Your task to perform on an android device: Open location settings Image 0: 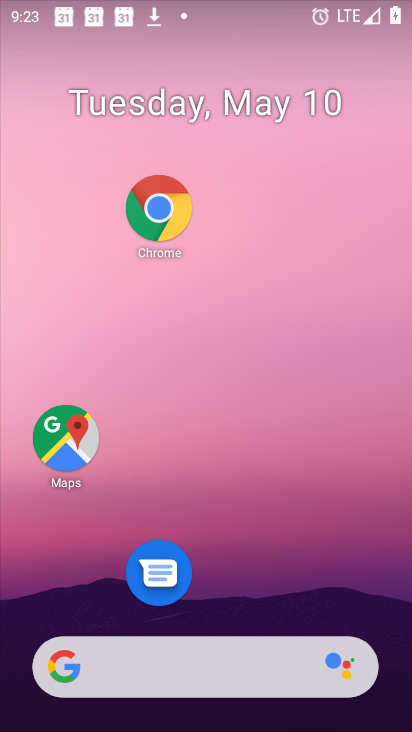
Step 0: drag from (301, 691) to (304, 429)
Your task to perform on an android device: Open location settings Image 1: 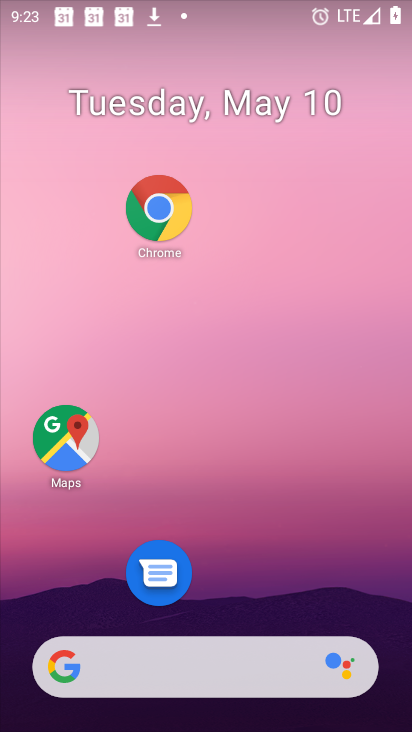
Step 1: drag from (275, 690) to (318, 115)
Your task to perform on an android device: Open location settings Image 2: 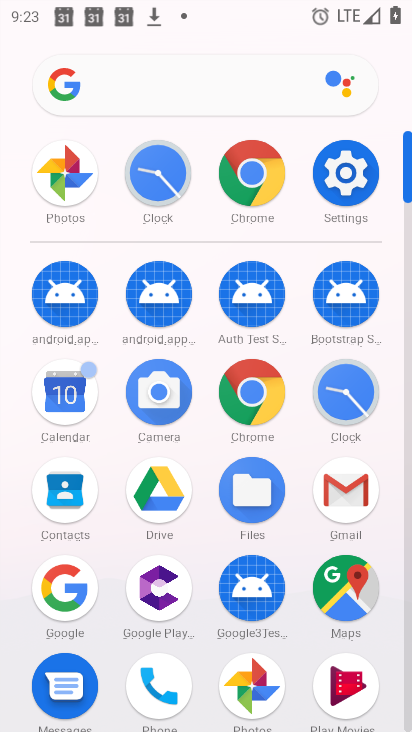
Step 2: click (338, 172)
Your task to perform on an android device: Open location settings Image 3: 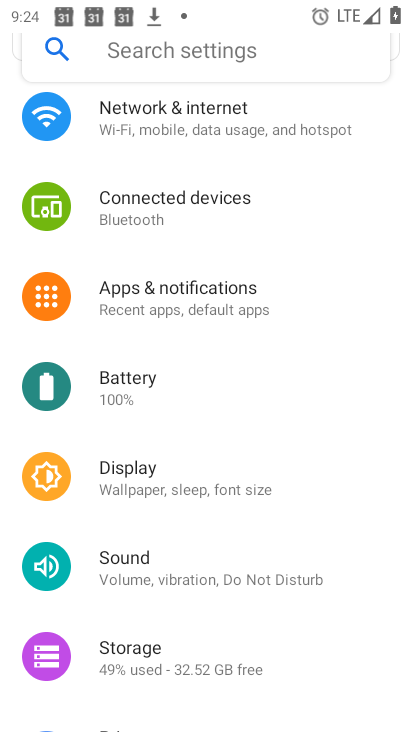
Step 3: click (181, 62)
Your task to perform on an android device: Open location settings Image 4: 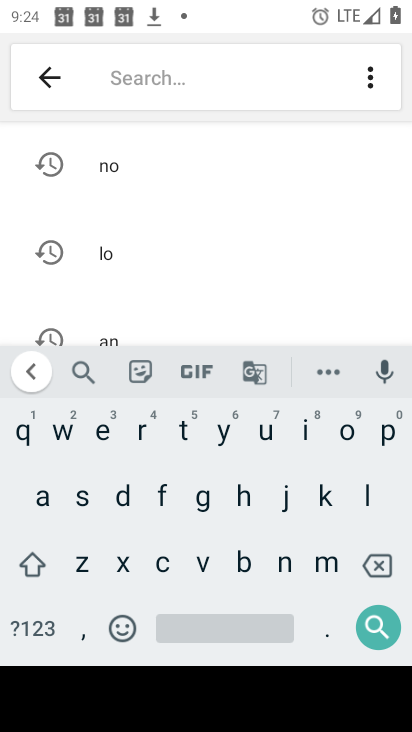
Step 4: click (363, 493)
Your task to perform on an android device: Open location settings Image 5: 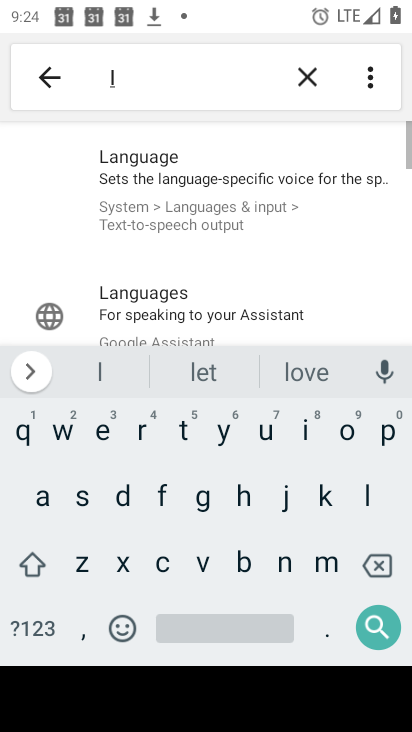
Step 5: click (347, 435)
Your task to perform on an android device: Open location settings Image 6: 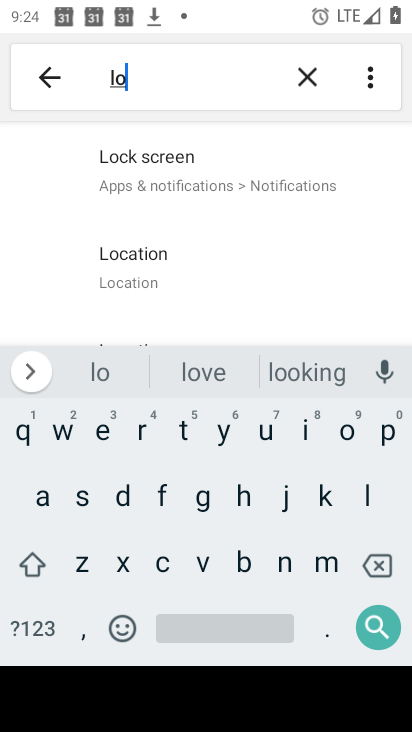
Step 6: click (137, 256)
Your task to perform on an android device: Open location settings Image 7: 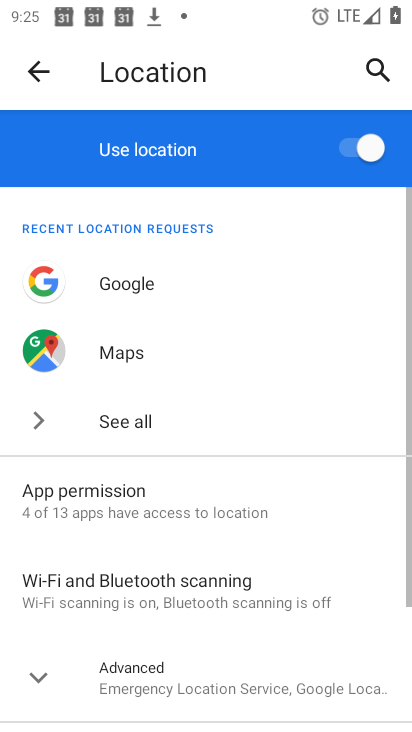
Step 7: task complete